Your task to perform on an android device: open wifi settings Image 0: 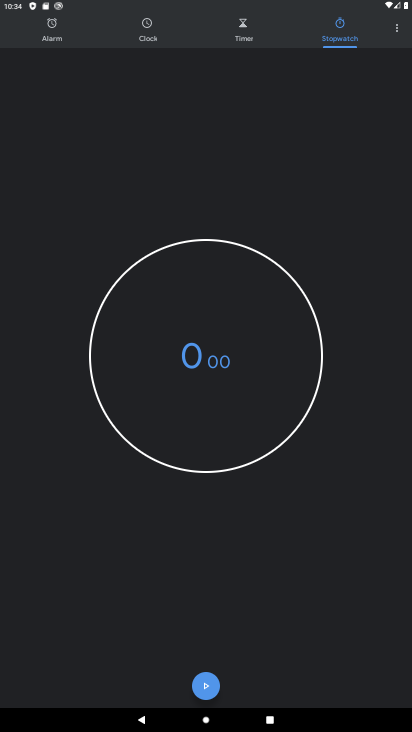
Step 0: press home button
Your task to perform on an android device: open wifi settings Image 1: 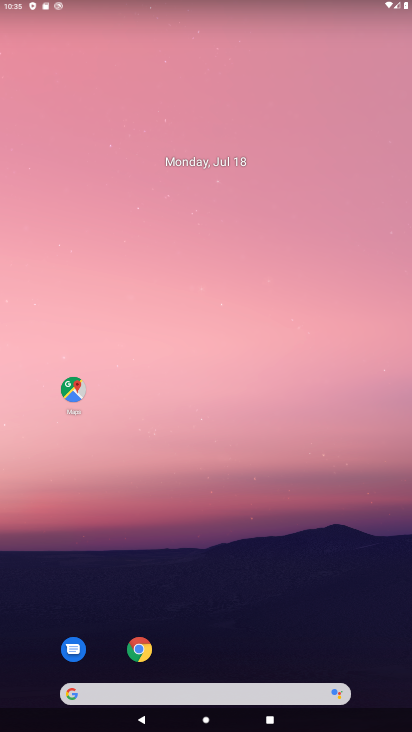
Step 1: drag from (205, 571) to (201, 80)
Your task to perform on an android device: open wifi settings Image 2: 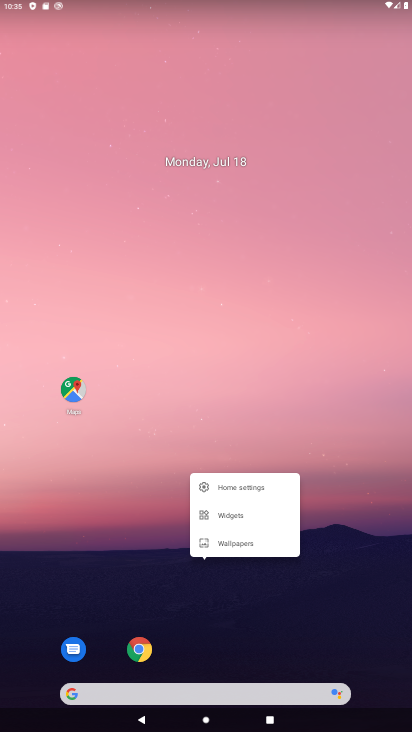
Step 2: click (101, 581)
Your task to perform on an android device: open wifi settings Image 3: 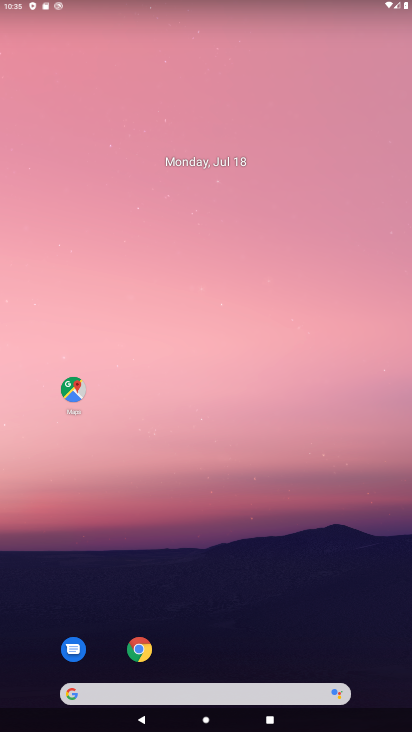
Step 3: drag from (258, 612) to (250, 255)
Your task to perform on an android device: open wifi settings Image 4: 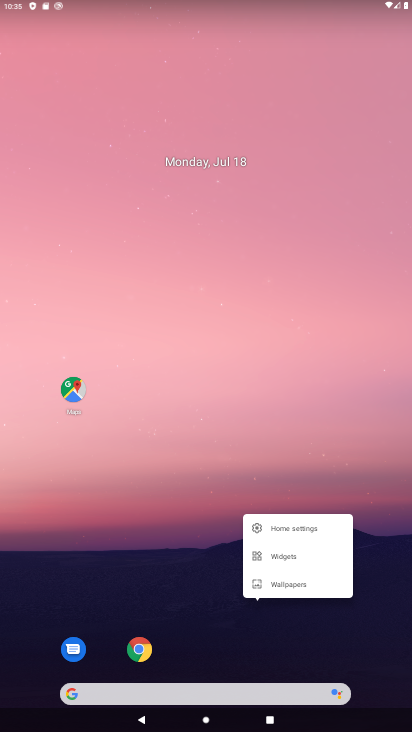
Step 4: click (153, 511)
Your task to perform on an android device: open wifi settings Image 5: 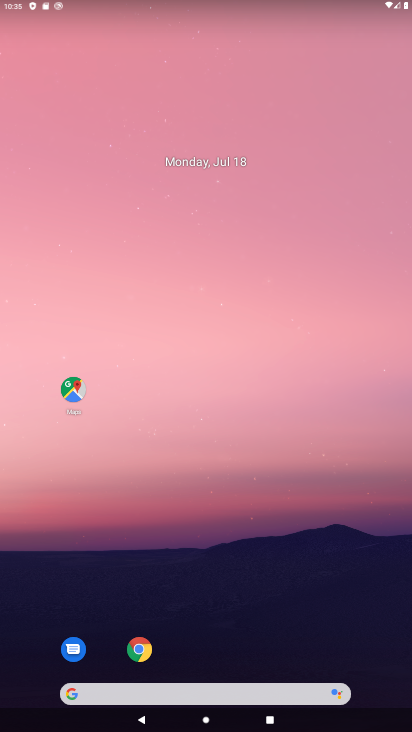
Step 5: drag from (264, 614) to (119, 32)
Your task to perform on an android device: open wifi settings Image 6: 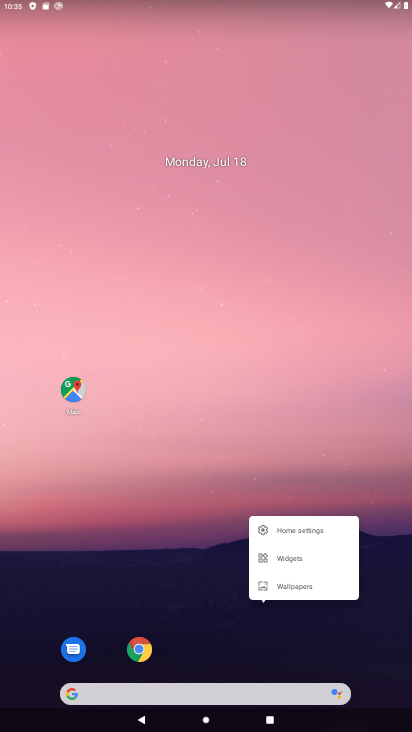
Step 6: click (244, 476)
Your task to perform on an android device: open wifi settings Image 7: 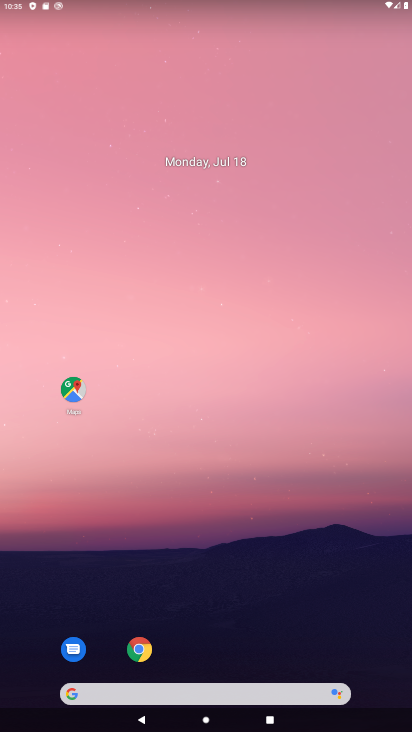
Step 7: drag from (258, 644) to (194, 105)
Your task to perform on an android device: open wifi settings Image 8: 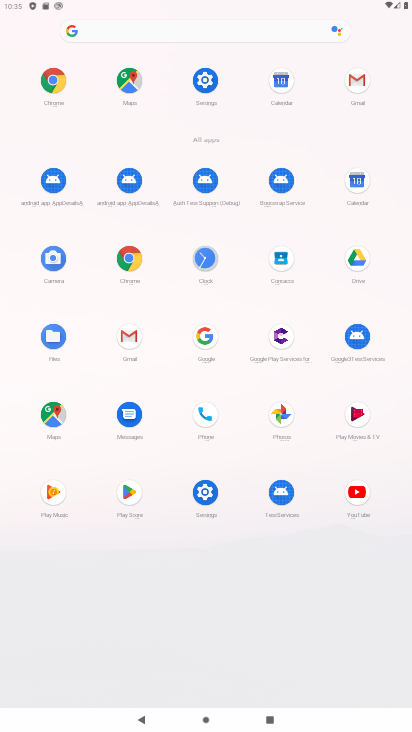
Step 8: click (203, 78)
Your task to perform on an android device: open wifi settings Image 9: 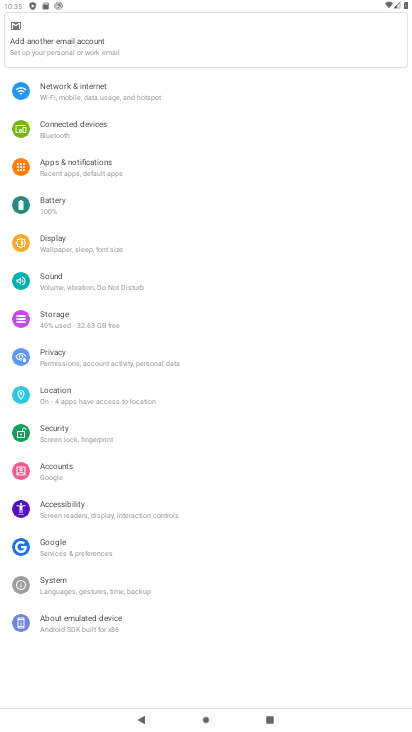
Step 9: click (69, 83)
Your task to perform on an android device: open wifi settings Image 10: 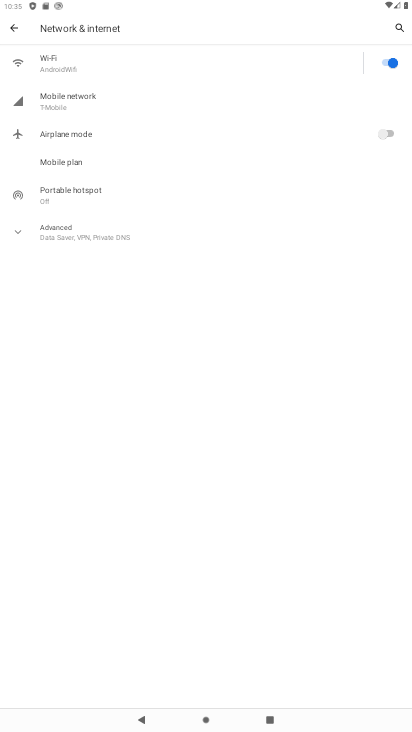
Step 10: click (53, 53)
Your task to perform on an android device: open wifi settings Image 11: 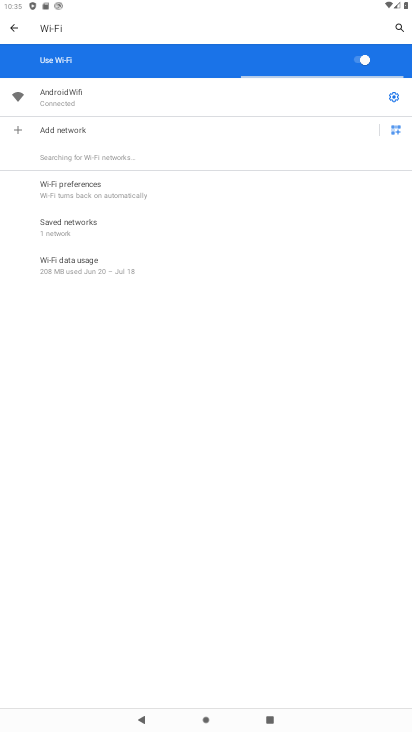
Step 11: task complete